Your task to perform on an android device: toggle pop-ups in chrome Image 0: 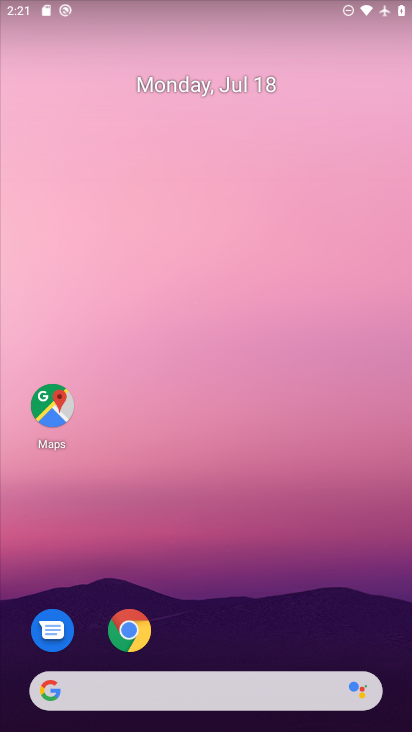
Step 0: drag from (277, 641) to (127, 4)
Your task to perform on an android device: toggle pop-ups in chrome Image 1: 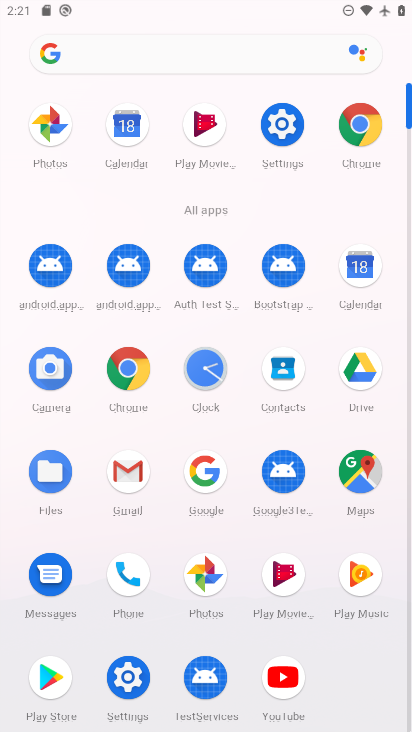
Step 1: click (361, 127)
Your task to perform on an android device: toggle pop-ups in chrome Image 2: 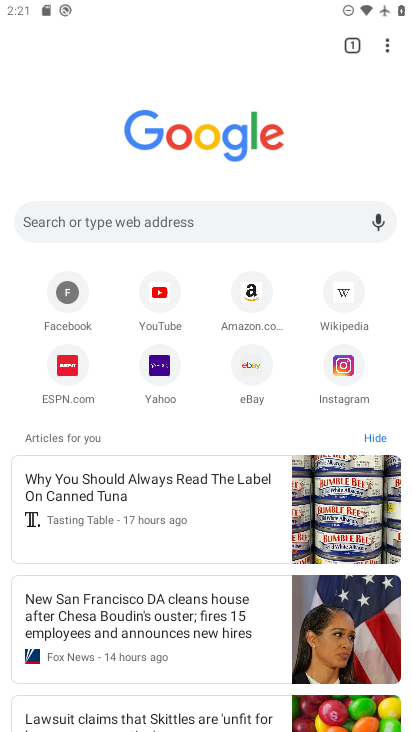
Step 2: click (382, 43)
Your task to perform on an android device: toggle pop-ups in chrome Image 3: 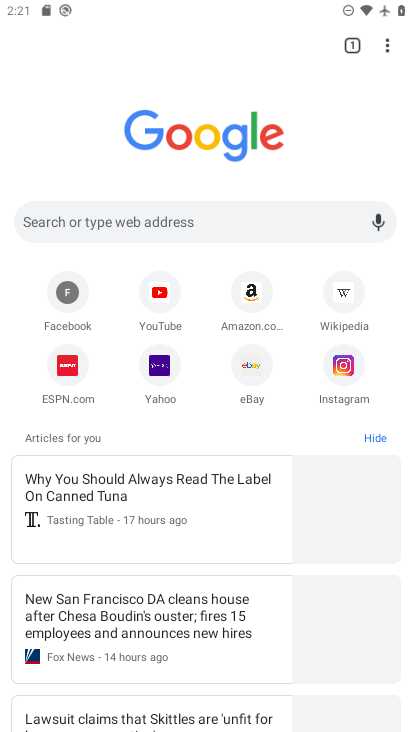
Step 3: drag from (382, 43) to (214, 383)
Your task to perform on an android device: toggle pop-ups in chrome Image 4: 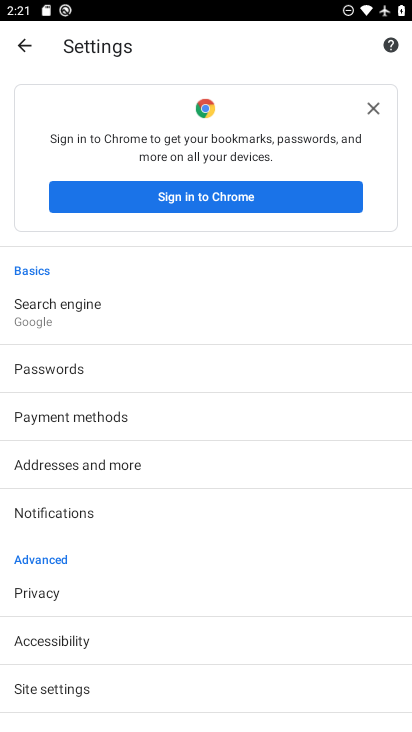
Step 4: click (37, 686)
Your task to perform on an android device: toggle pop-ups in chrome Image 5: 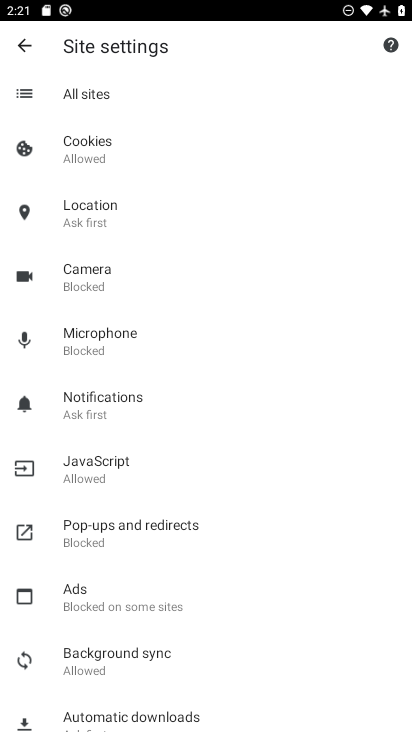
Step 5: click (131, 531)
Your task to perform on an android device: toggle pop-ups in chrome Image 6: 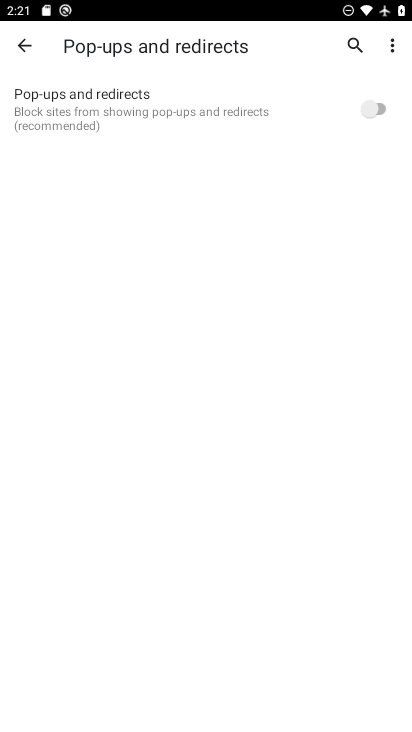
Step 6: click (382, 111)
Your task to perform on an android device: toggle pop-ups in chrome Image 7: 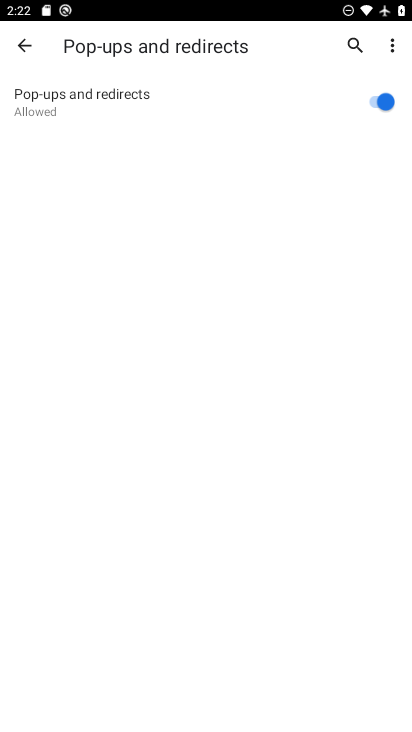
Step 7: task complete